Your task to perform on an android device: Do I have any events tomorrow? Image 0: 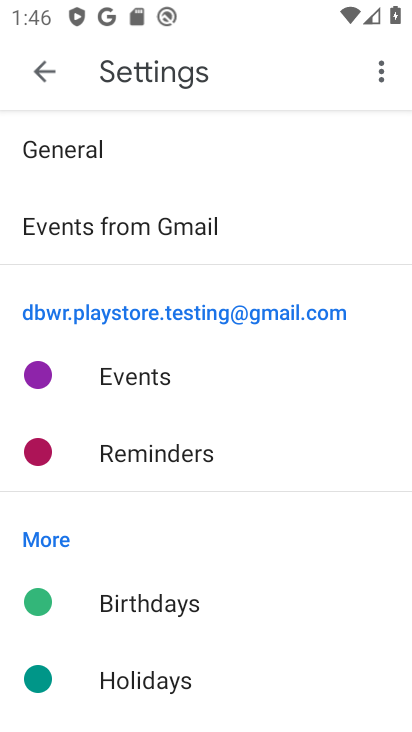
Step 0: press home button
Your task to perform on an android device: Do I have any events tomorrow? Image 1: 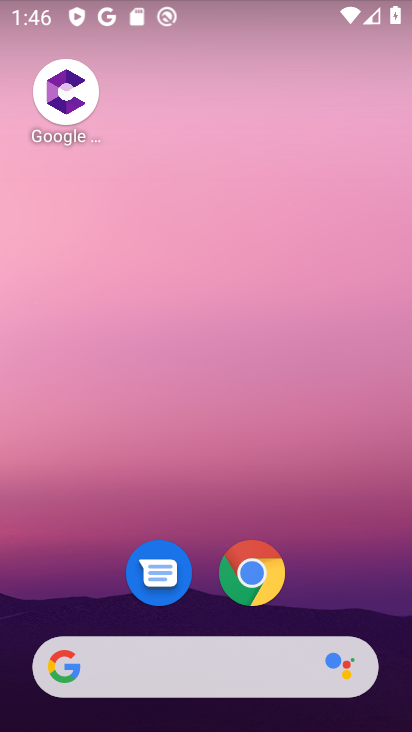
Step 1: drag from (334, 568) to (336, 307)
Your task to perform on an android device: Do I have any events tomorrow? Image 2: 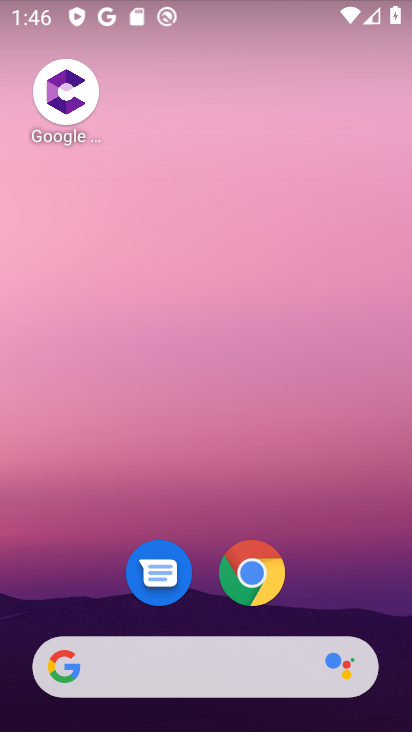
Step 2: drag from (212, 599) to (251, 282)
Your task to perform on an android device: Do I have any events tomorrow? Image 3: 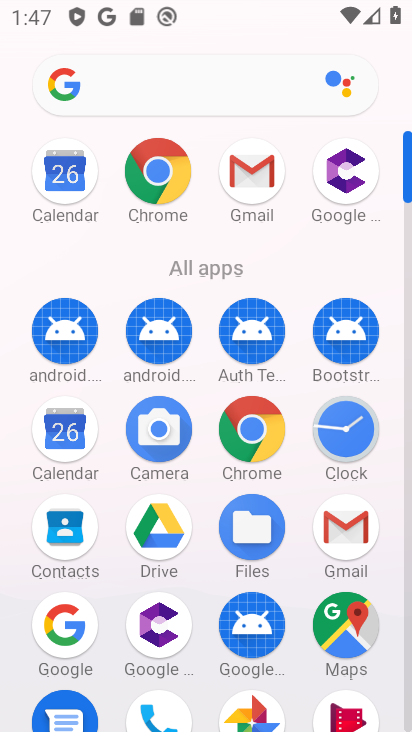
Step 3: click (68, 417)
Your task to perform on an android device: Do I have any events tomorrow? Image 4: 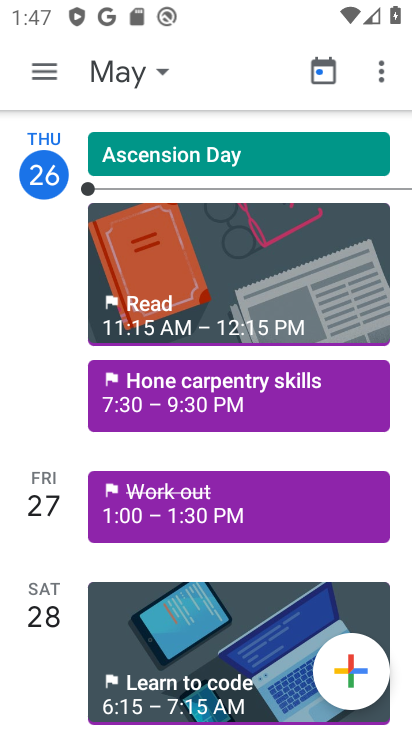
Step 4: task complete